Your task to perform on an android device: turn on priority inbox in the gmail app Image 0: 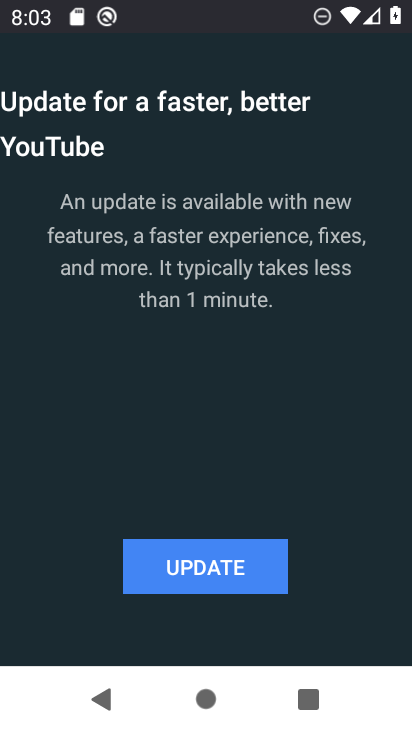
Step 0: press back button
Your task to perform on an android device: turn on priority inbox in the gmail app Image 1: 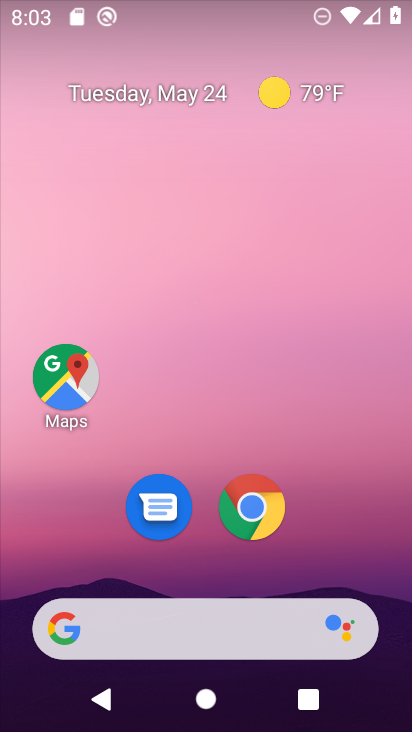
Step 1: drag from (333, 532) to (219, 3)
Your task to perform on an android device: turn on priority inbox in the gmail app Image 2: 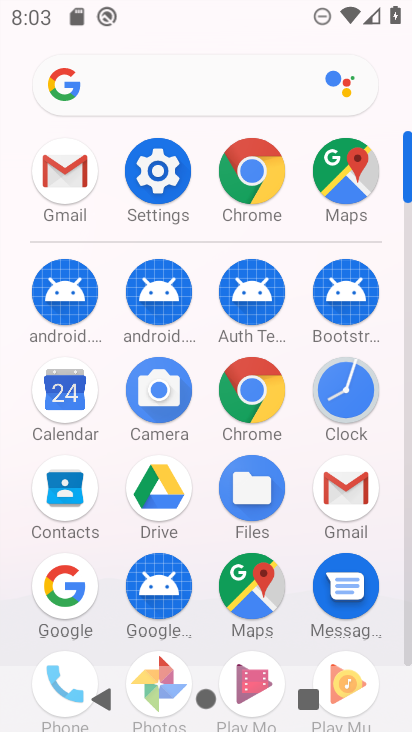
Step 2: drag from (4, 542) to (3, 203)
Your task to perform on an android device: turn on priority inbox in the gmail app Image 3: 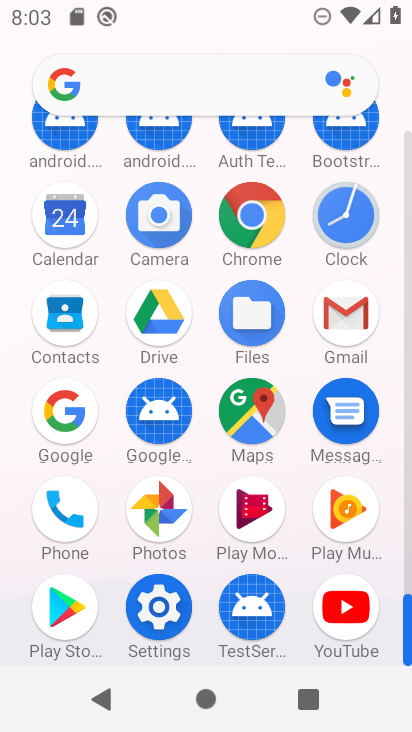
Step 3: click (343, 309)
Your task to perform on an android device: turn on priority inbox in the gmail app Image 4: 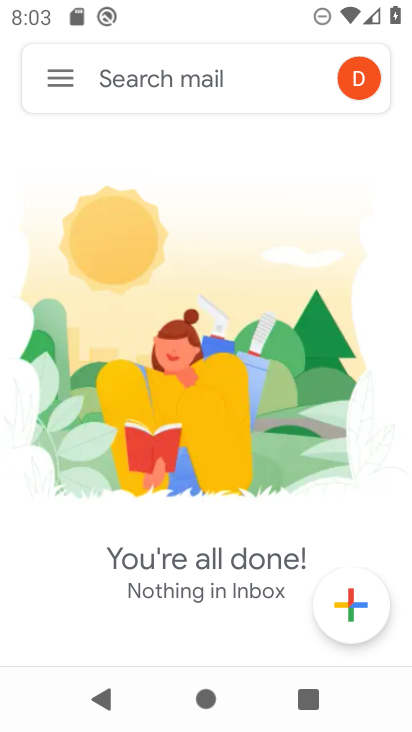
Step 4: click (57, 73)
Your task to perform on an android device: turn on priority inbox in the gmail app Image 5: 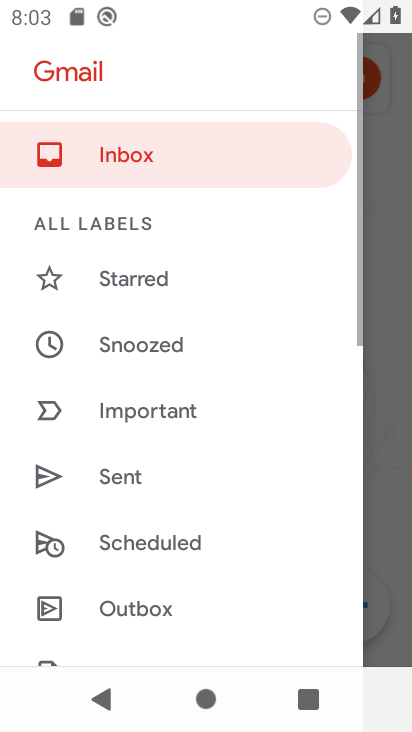
Step 5: drag from (210, 545) to (253, 114)
Your task to perform on an android device: turn on priority inbox in the gmail app Image 6: 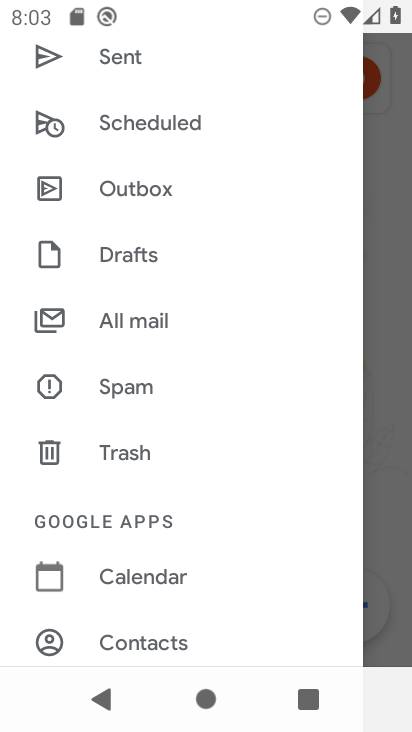
Step 6: drag from (238, 557) to (247, 140)
Your task to perform on an android device: turn on priority inbox in the gmail app Image 7: 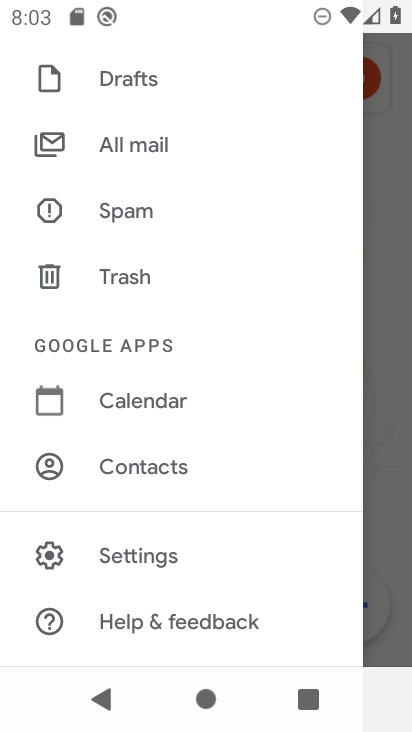
Step 7: click (142, 556)
Your task to perform on an android device: turn on priority inbox in the gmail app Image 8: 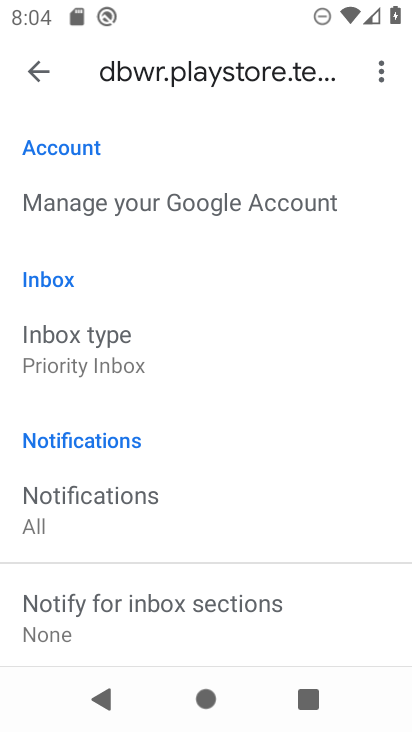
Step 8: task complete